Your task to perform on an android device: What's on my calendar tomorrow? Image 0: 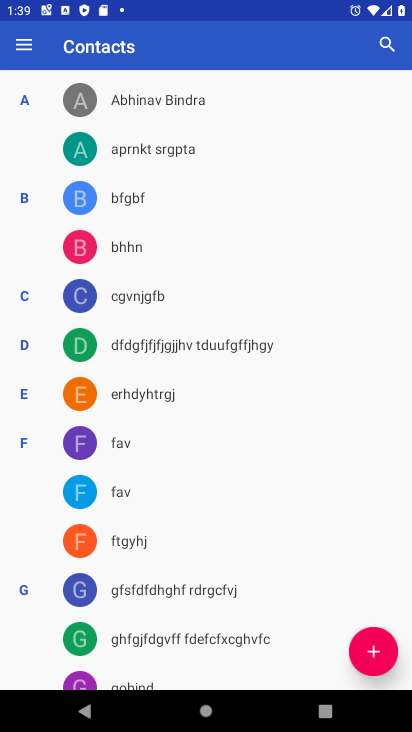
Step 0: press home button
Your task to perform on an android device: What's on my calendar tomorrow? Image 1: 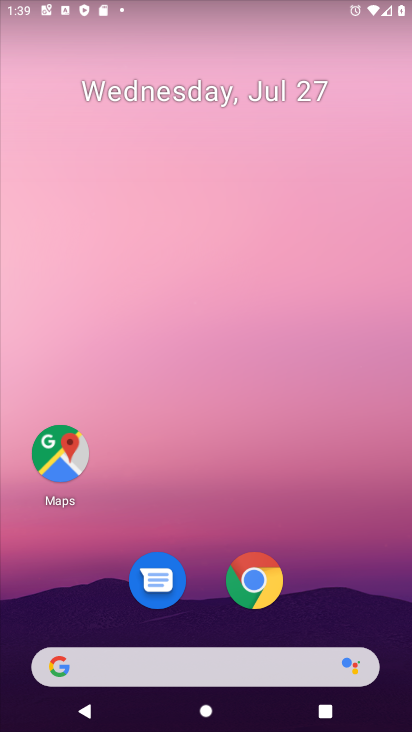
Step 1: drag from (271, 680) to (315, 246)
Your task to perform on an android device: What's on my calendar tomorrow? Image 2: 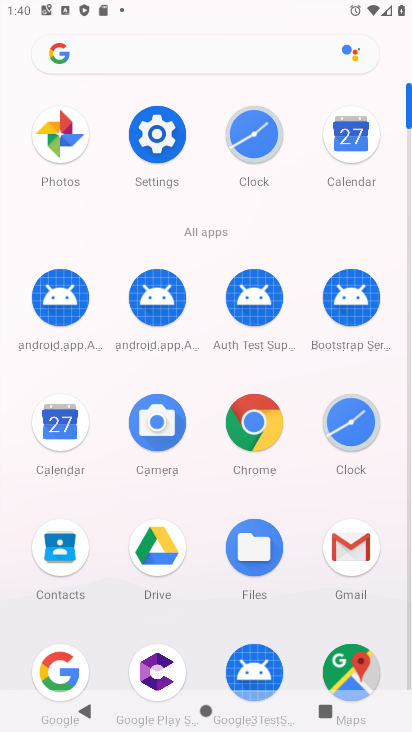
Step 2: click (353, 146)
Your task to perform on an android device: What's on my calendar tomorrow? Image 3: 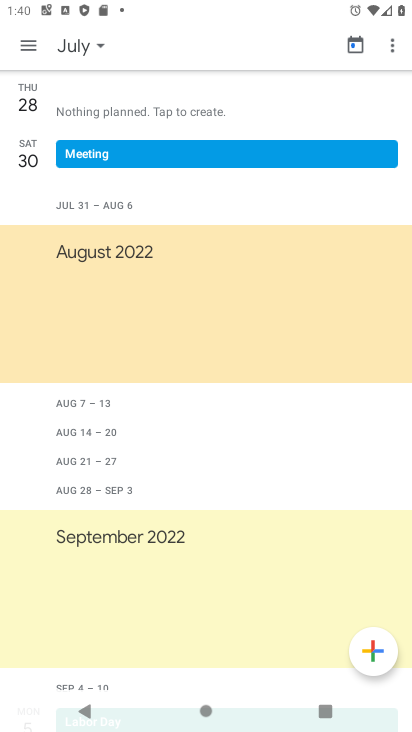
Step 3: click (27, 42)
Your task to perform on an android device: What's on my calendar tomorrow? Image 4: 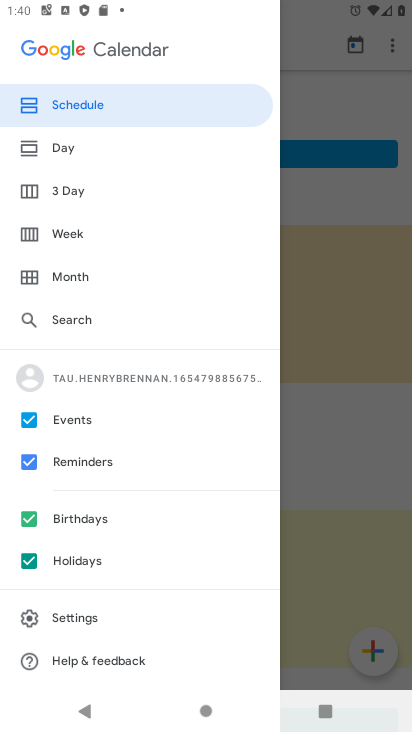
Step 4: click (90, 278)
Your task to perform on an android device: What's on my calendar tomorrow? Image 5: 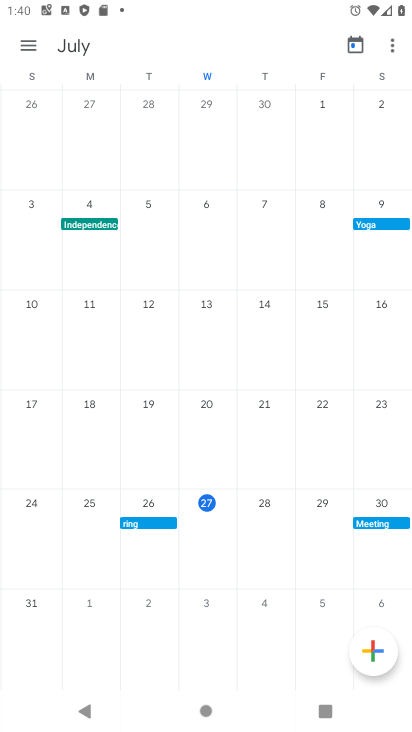
Step 5: click (256, 517)
Your task to perform on an android device: What's on my calendar tomorrow? Image 6: 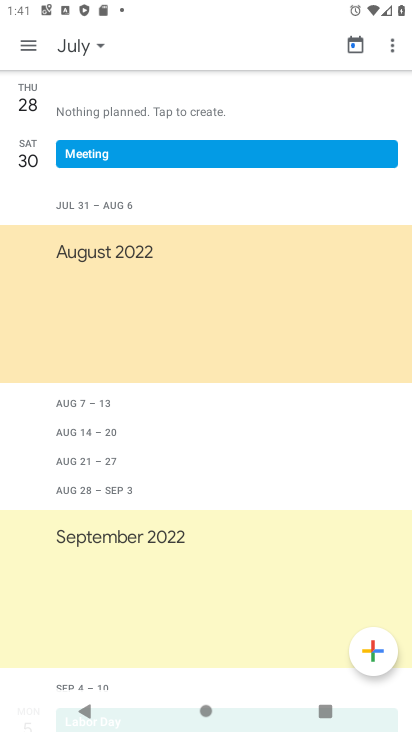
Step 6: task complete